Your task to perform on an android device: turn on improve location accuracy Image 0: 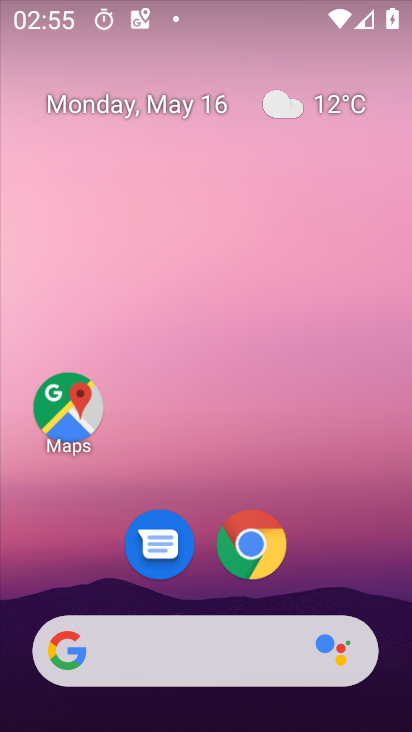
Step 0: drag from (207, 717) to (244, 118)
Your task to perform on an android device: turn on improve location accuracy Image 1: 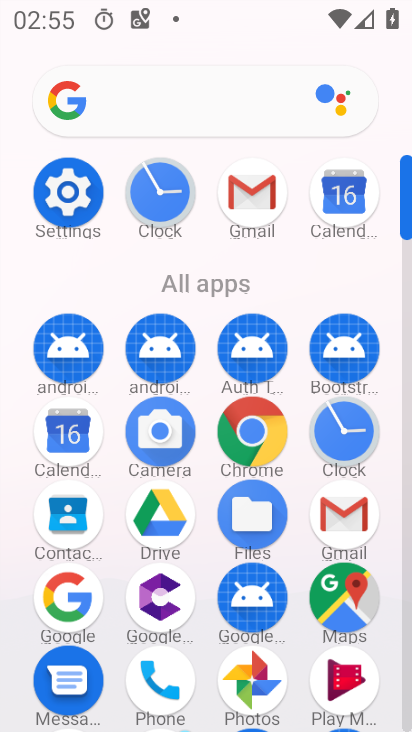
Step 1: click (59, 189)
Your task to perform on an android device: turn on improve location accuracy Image 2: 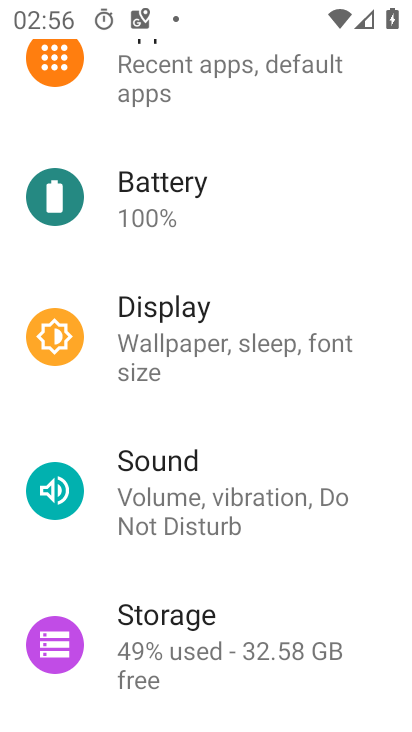
Step 2: drag from (148, 641) to (174, 247)
Your task to perform on an android device: turn on improve location accuracy Image 3: 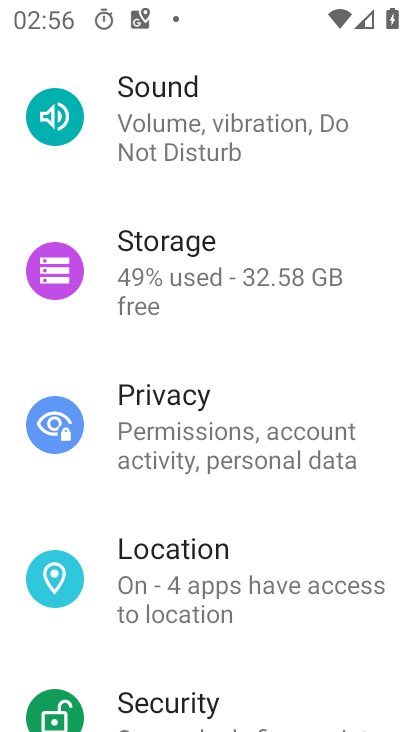
Step 3: click (173, 568)
Your task to perform on an android device: turn on improve location accuracy Image 4: 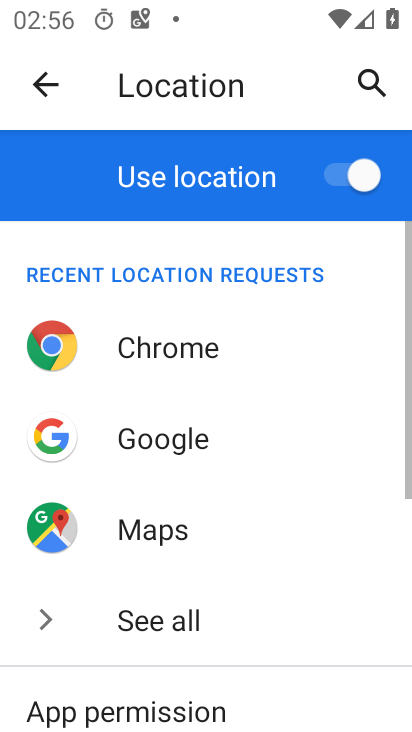
Step 4: drag from (166, 700) to (185, 309)
Your task to perform on an android device: turn on improve location accuracy Image 5: 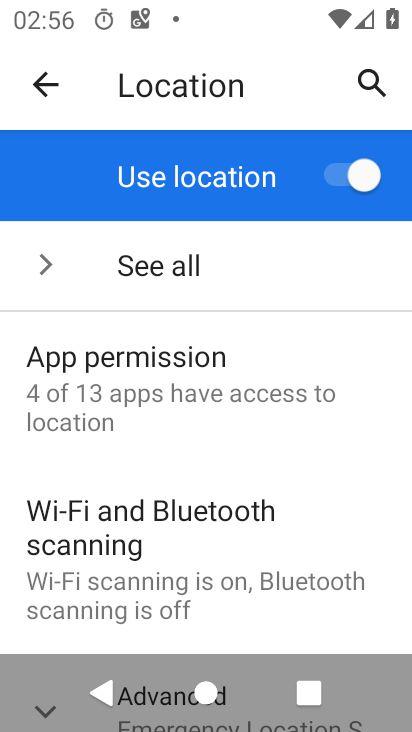
Step 5: drag from (216, 627) to (256, 317)
Your task to perform on an android device: turn on improve location accuracy Image 6: 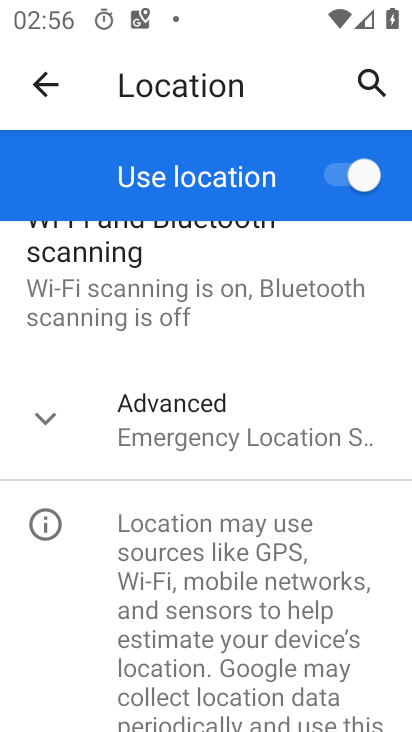
Step 6: click (182, 436)
Your task to perform on an android device: turn on improve location accuracy Image 7: 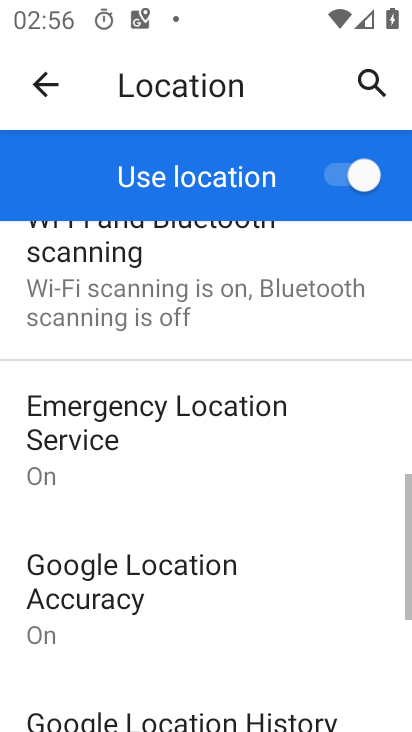
Step 7: drag from (219, 665) to (249, 423)
Your task to perform on an android device: turn on improve location accuracy Image 8: 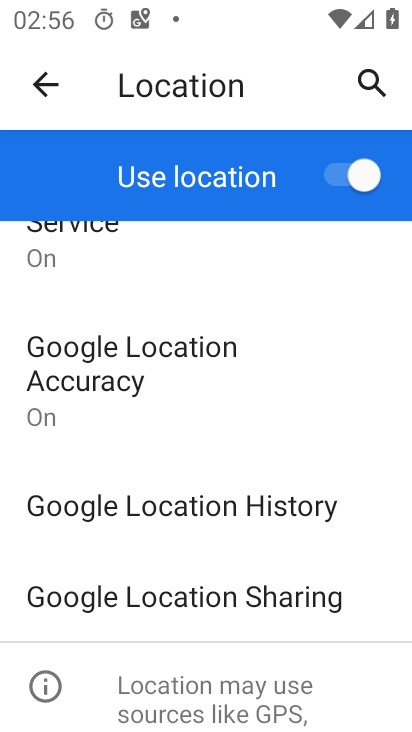
Step 8: click (102, 361)
Your task to perform on an android device: turn on improve location accuracy Image 9: 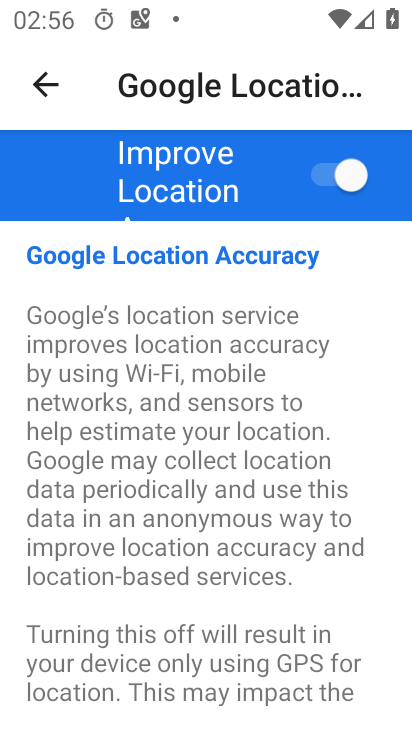
Step 9: task complete